Your task to perform on an android device: Show me productivity apps on the Play Store Image 0: 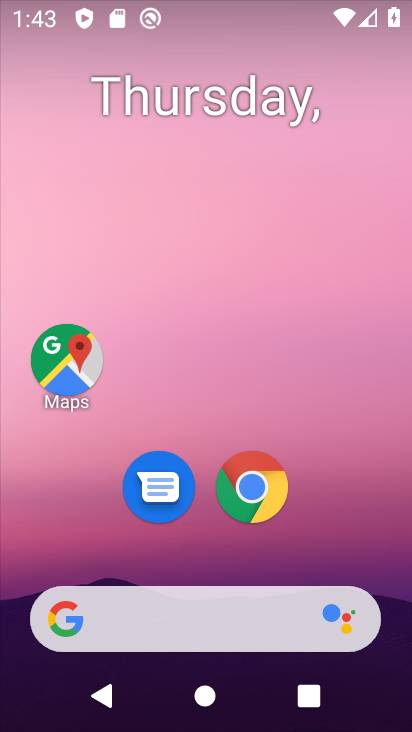
Step 0: drag from (316, 554) to (320, 7)
Your task to perform on an android device: Show me productivity apps on the Play Store Image 1: 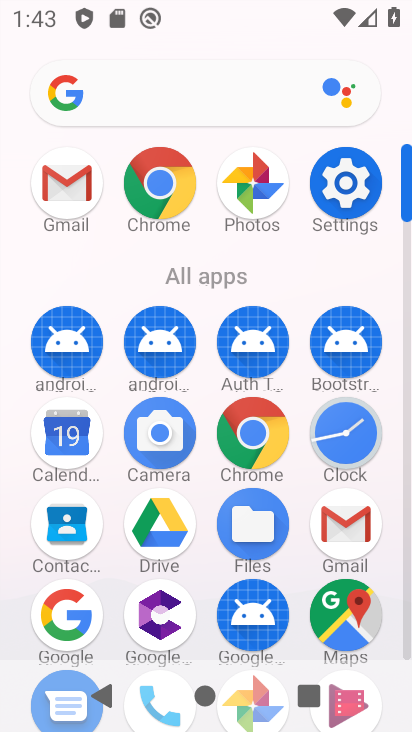
Step 1: drag from (101, 543) to (66, 140)
Your task to perform on an android device: Show me productivity apps on the Play Store Image 2: 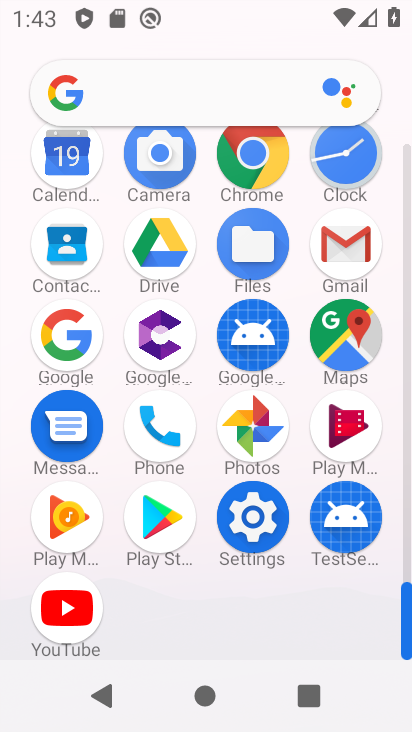
Step 2: click (152, 523)
Your task to perform on an android device: Show me productivity apps on the Play Store Image 3: 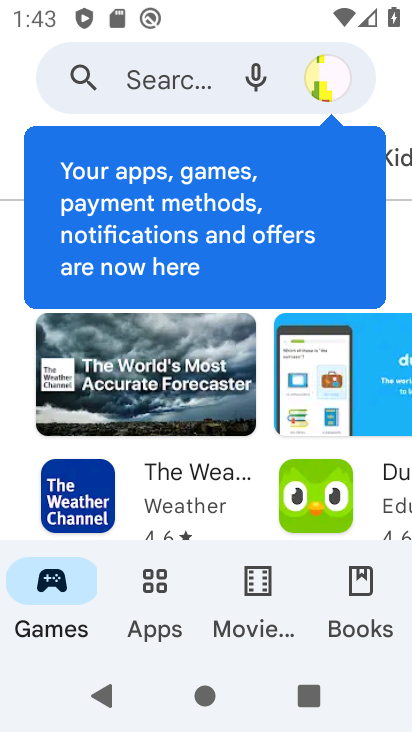
Step 3: click (167, 595)
Your task to perform on an android device: Show me productivity apps on the Play Store Image 4: 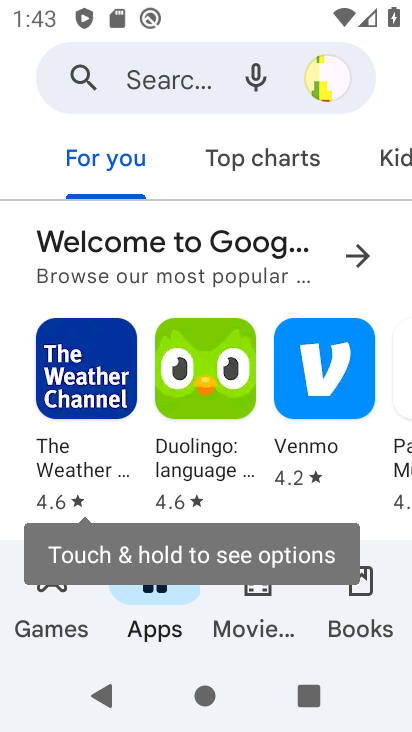
Step 4: drag from (395, 153) to (184, 133)
Your task to perform on an android device: Show me productivity apps on the Play Store Image 5: 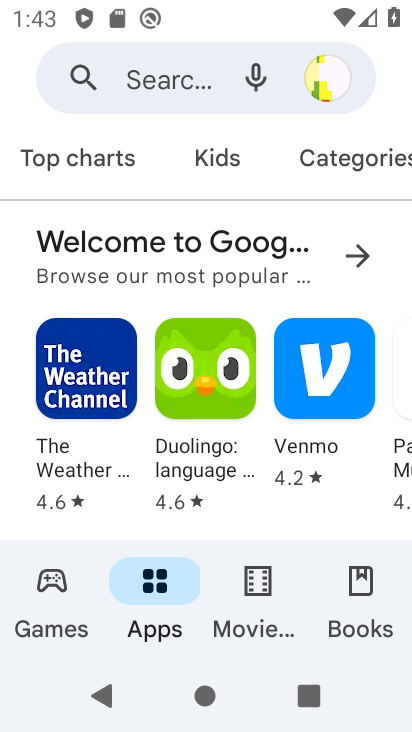
Step 5: click (337, 157)
Your task to perform on an android device: Show me productivity apps on the Play Store Image 6: 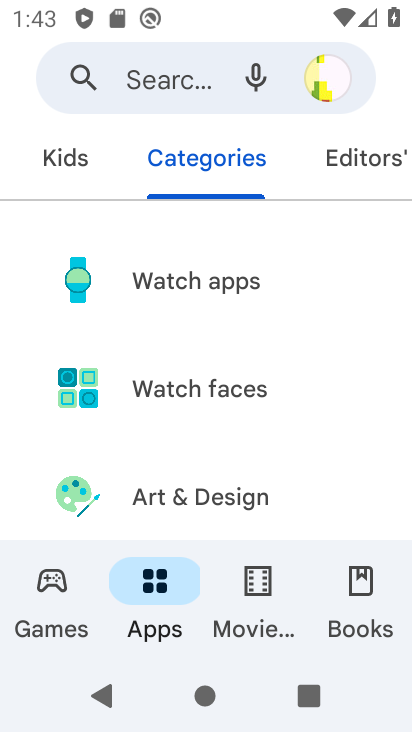
Step 6: drag from (227, 513) to (201, 233)
Your task to perform on an android device: Show me productivity apps on the Play Store Image 7: 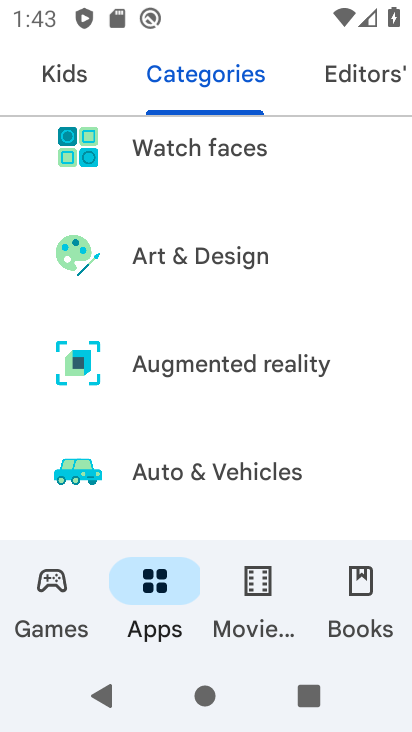
Step 7: drag from (253, 484) to (240, 259)
Your task to perform on an android device: Show me productivity apps on the Play Store Image 8: 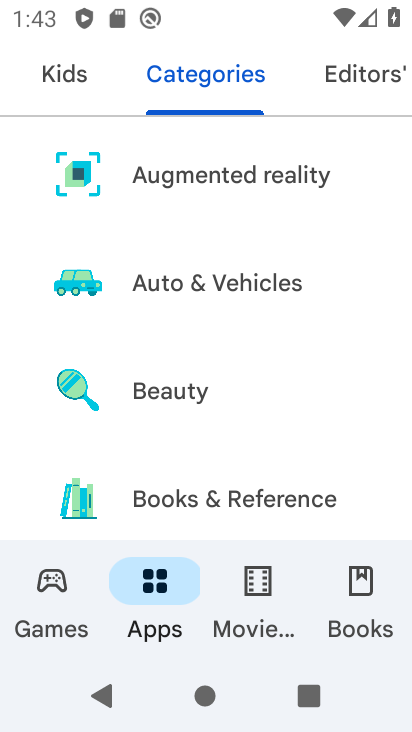
Step 8: drag from (233, 511) to (250, 235)
Your task to perform on an android device: Show me productivity apps on the Play Store Image 9: 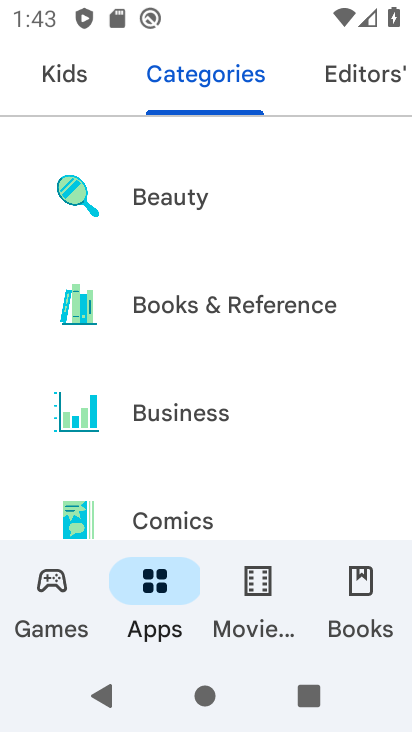
Step 9: drag from (288, 480) to (298, 239)
Your task to perform on an android device: Show me productivity apps on the Play Store Image 10: 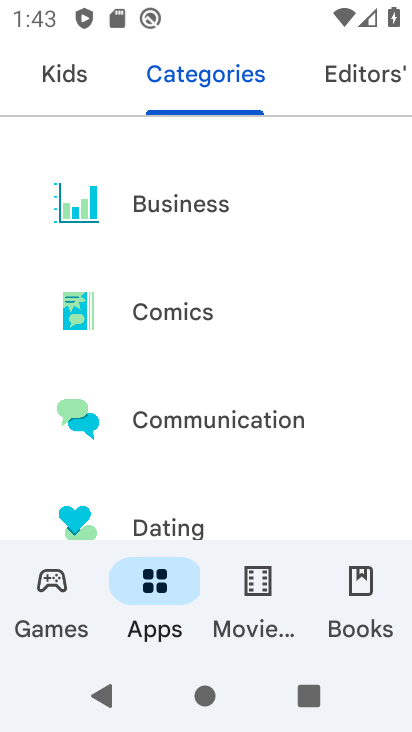
Step 10: drag from (215, 505) to (217, 278)
Your task to perform on an android device: Show me productivity apps on the Play Store Image 11: 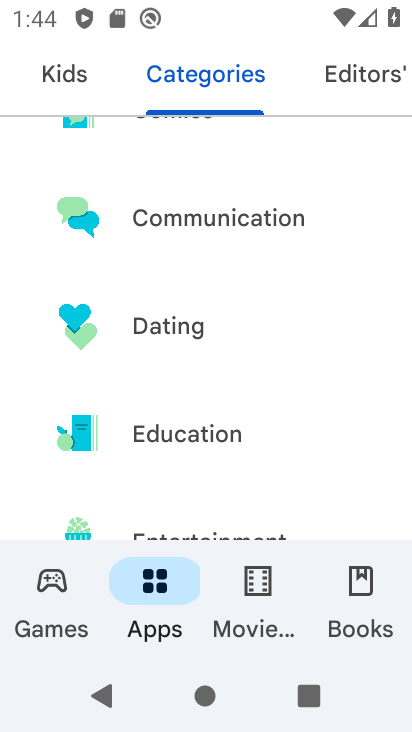
Step 11: drag from (179, 512) to (177, 295)
Your task to perform on an android device: Show me productivity apps on the Play Store Image 12: 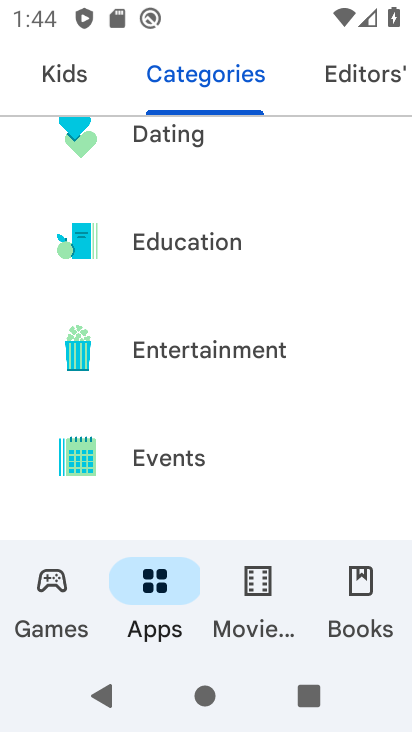
Step 12: drag from (169, 511) to (193, 302)
Your task to perform on an android device: Show me productivity apps on the Play Store Image 13: 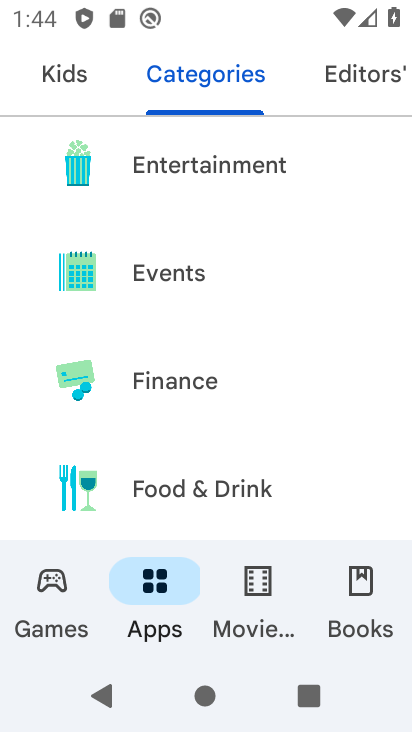
Step 13: drag from (194, 465) to (222, 323)
Your task to perform on an android device: Show me productivity apps on the Play Store Image 14: 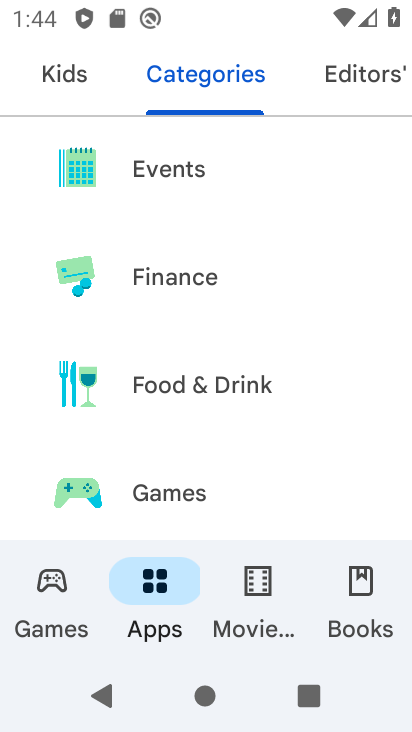
Step 14: drag from (230, 478) to (263, 247)
Your task to perform on an android device: Show me productivity apps on the Play Store Image 15: 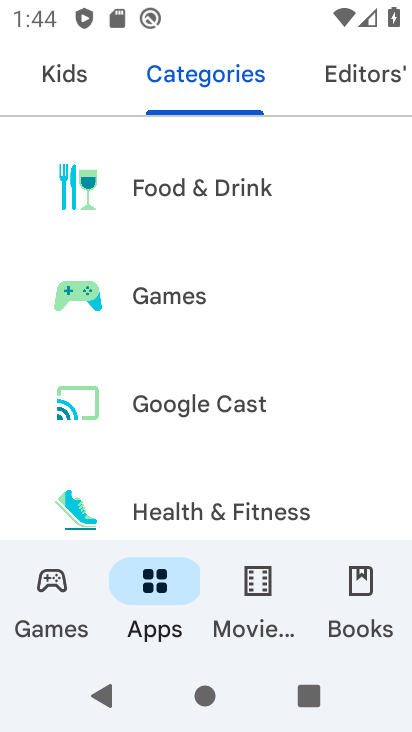
Step 15: drag from (265, 517) to (267, 295)
Your task to perform on an android device: Show me productivity apps on the Play Store Image 16: 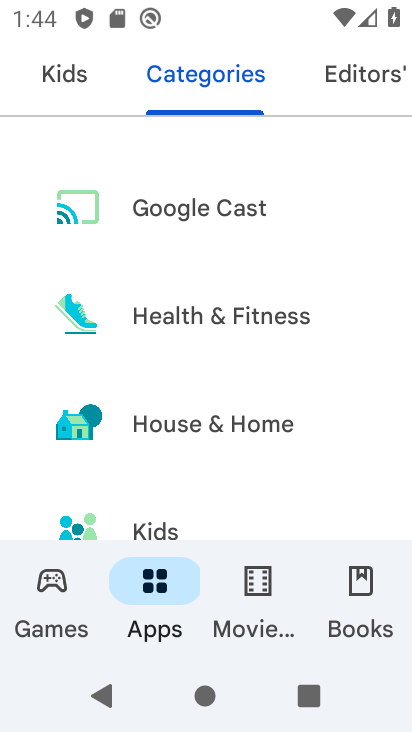
Step 16: drag from (220, 508) to (250, 286)
Your task to perform on an android device: Show me productivity apps on the Play Store Image 17: 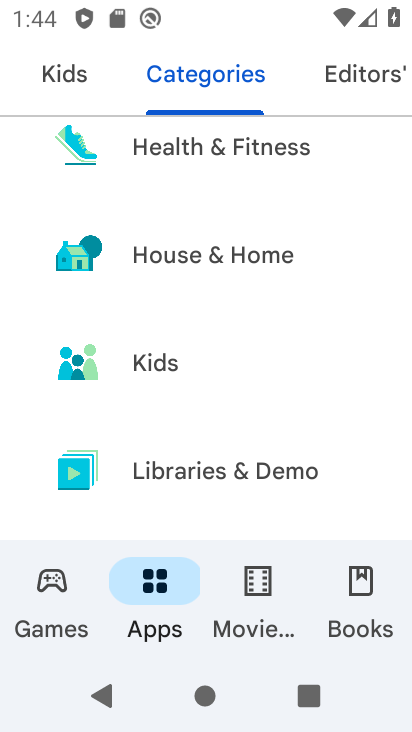
Step 17: drag from (226, 503) to (238, 312)
Your task to perform on an android device: Show me productivity apps on the Play Store Image 18: 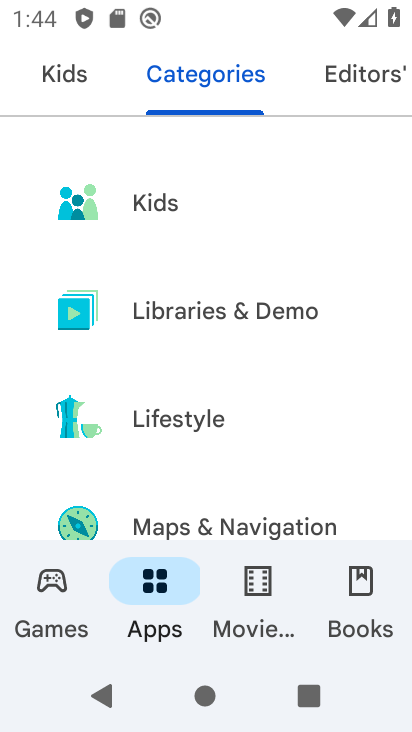
Step 18: drag from (235, 504) to (262, 303)
Your task to perform on an android device: Show me productivity apps on the Play Store Image 19: 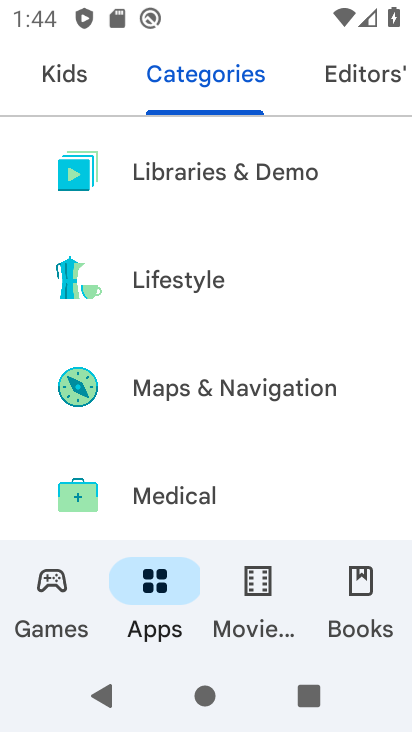
Step 19: drag from (211, 502) to (243, 262)
Your task to perform on an android device: Show me productivity apps on the Play Store Image 20: 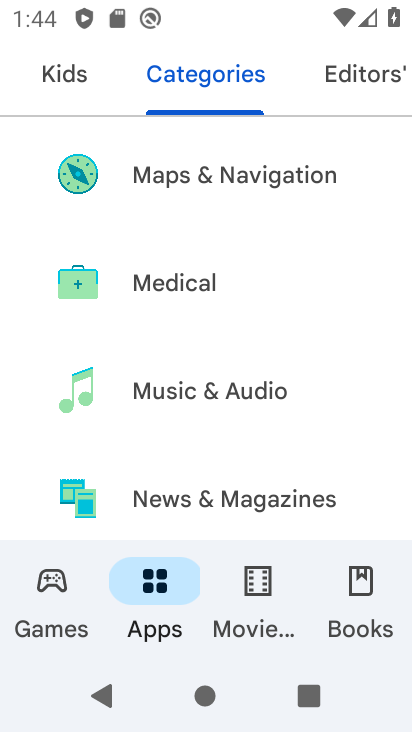
Step 20: drag from (207, 497) to (240, 308)
Your task to perform on an android device: Show me productivity apps on the Play Store Image 21: 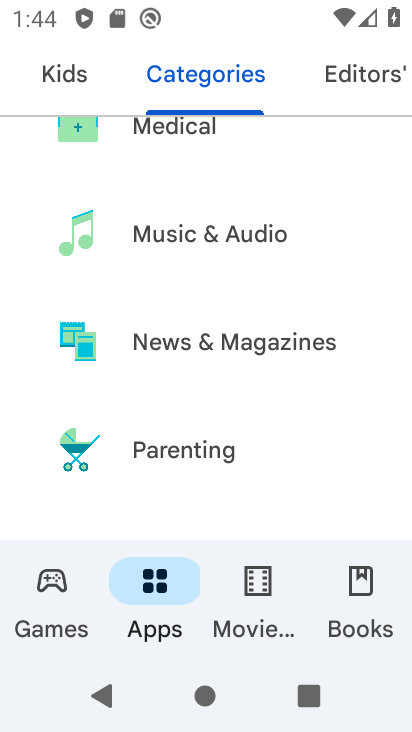
Step 21: drag from (218, 493) to (260, 228)
Your task to perform on an android device: Show me productivity apps on the Play Store Image 22: 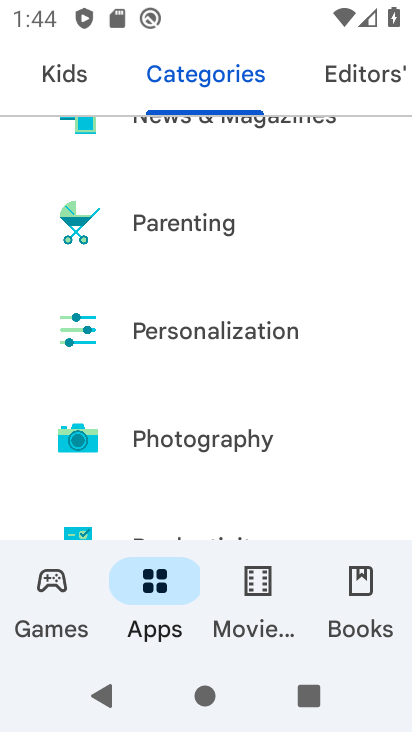
Step 22: drag from (184, 482) to (227, 308)
Your task to perform on an android device: Show me productivity apps on the Play Store Image 23: 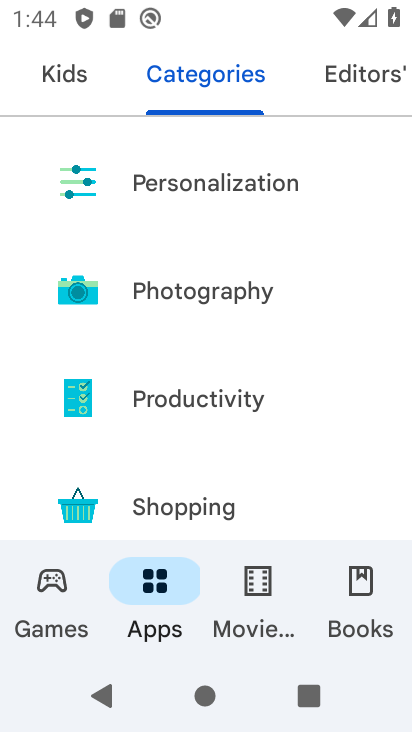
Step 23: click (200, 393)
Your task to perform on an android device: Show me productivity apps on the Play Store Image 24: 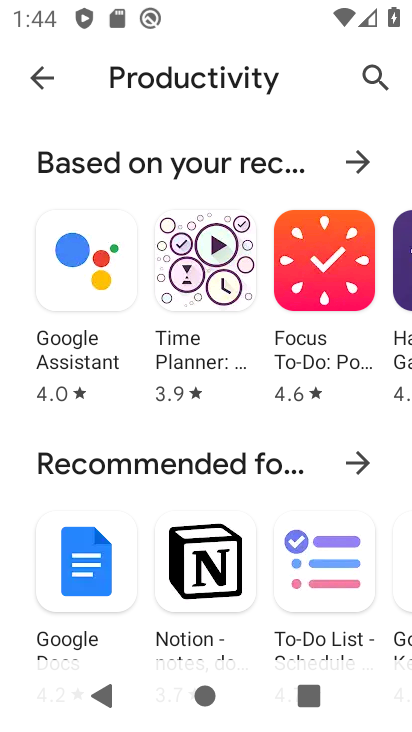
Step 24: task complete